Your task to perform on an android device: Open display settings Image 0: 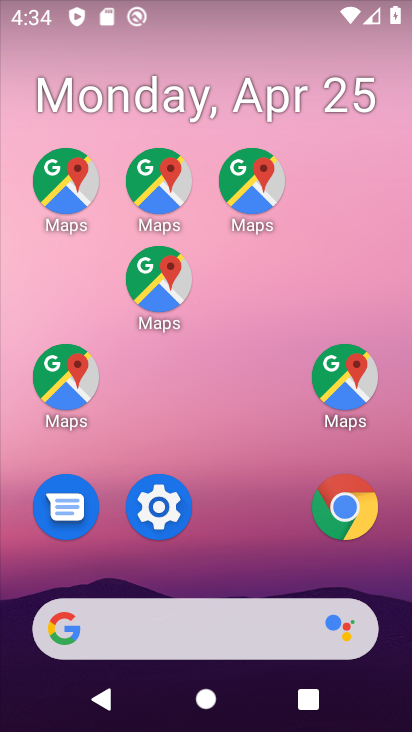
Step 0: drag from (295, 578) to (193, 338)
Your task to perform on an android device: Open display settings Image 1: 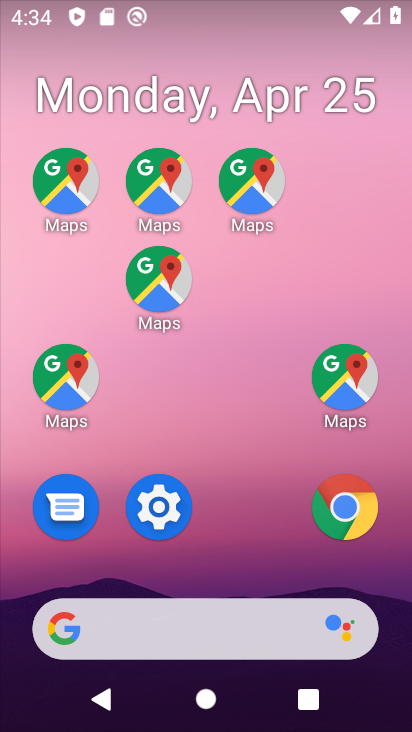
Step 1: drag from (274, 709) to (198, 19)
Your task to perform on an android device: Open display settings Image 2: 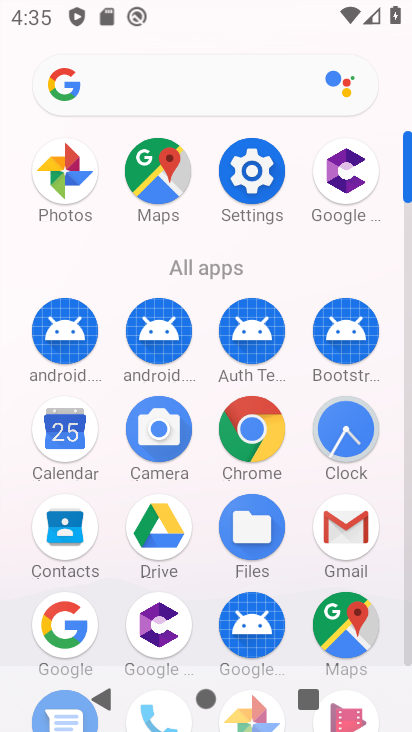
Step 2: click (249, 171)
Your task to perform on an android device: Open display settings Image 3: 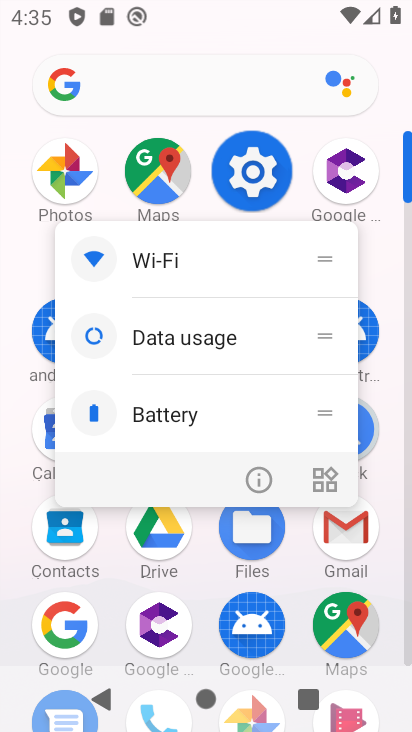
Step 3: click (242, 179)
Your task to perform on an android device: Open display settings Image 4: 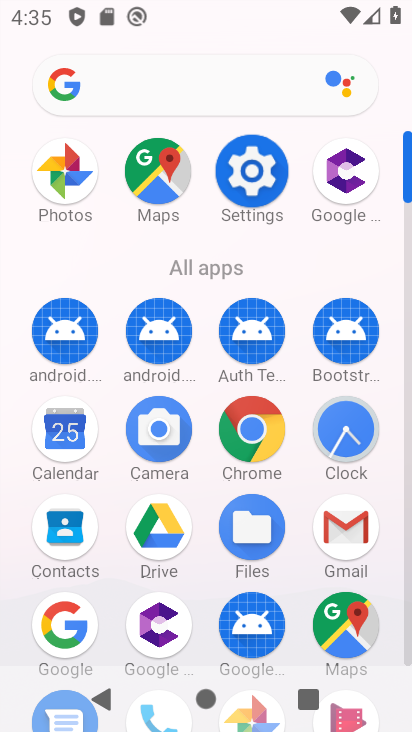
Step 4: click (225, 201)
Your task to perform on an android device: Open display settings Image 5: 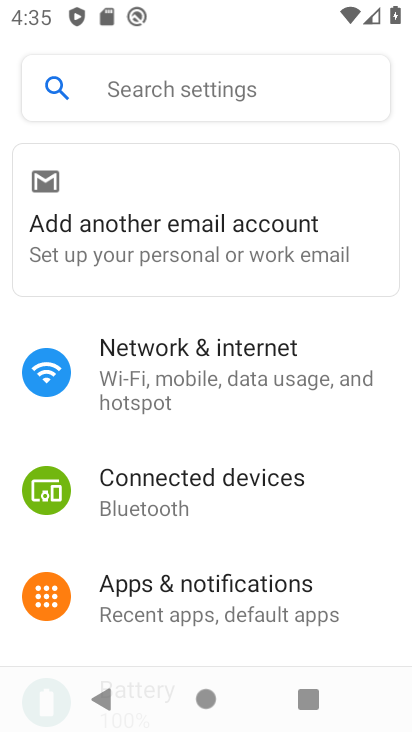
Step 5: drag from (200, 584) to (171, 140)
Your task to perform on an android device: Open display settings Image 6: 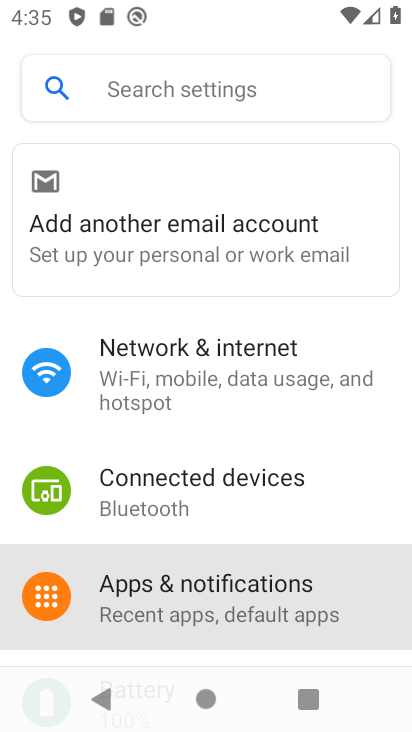
Step 6: drag from (171, 452) to (162, 107)
Your task to perform on an android device: Open display settings Image 7: 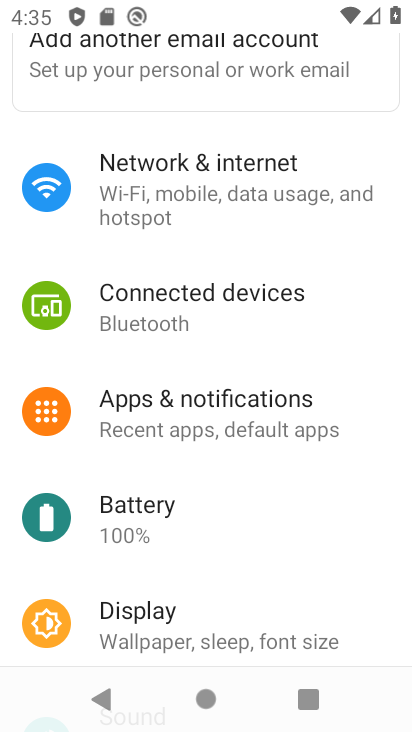
Step 7: drag from (204, 555) to (167, 171)
Your task to perform on an android device: Open display settings Image 8: 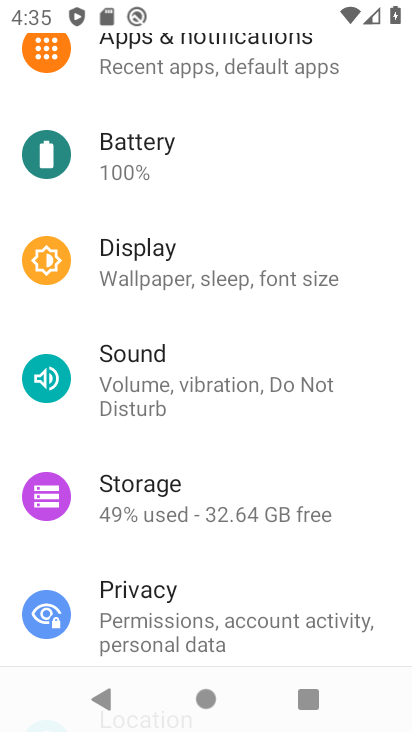
Step 8: click (139, 250)
Your task to perform on an android device: Open display settings Image 9: 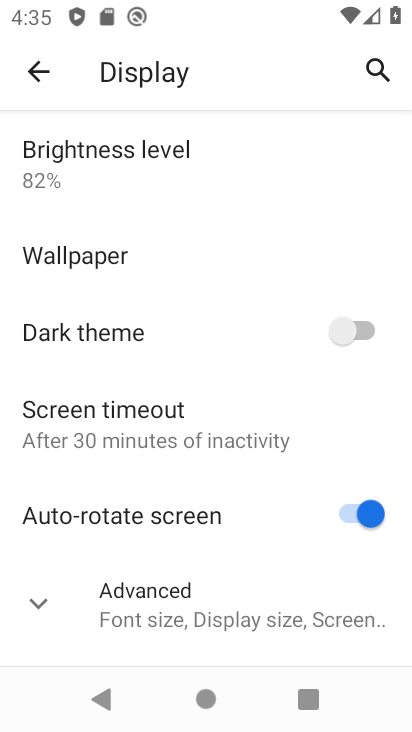
Step 9: task complete